Your task to perform on an android device: What is the news today? Image 0: 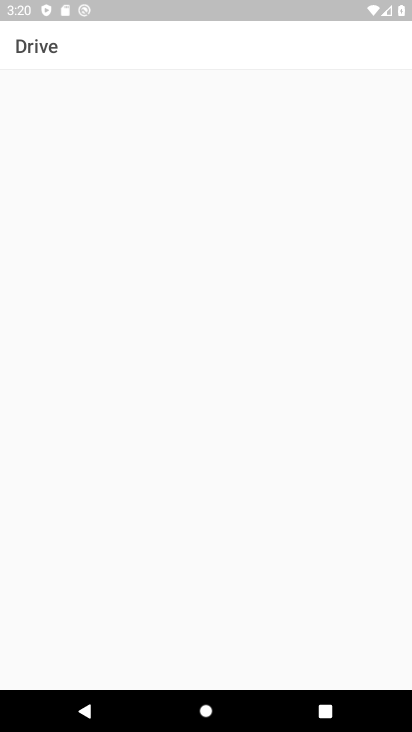
Step 0: press home button
Your task to perform on an android device: What is the news today? Image 1: 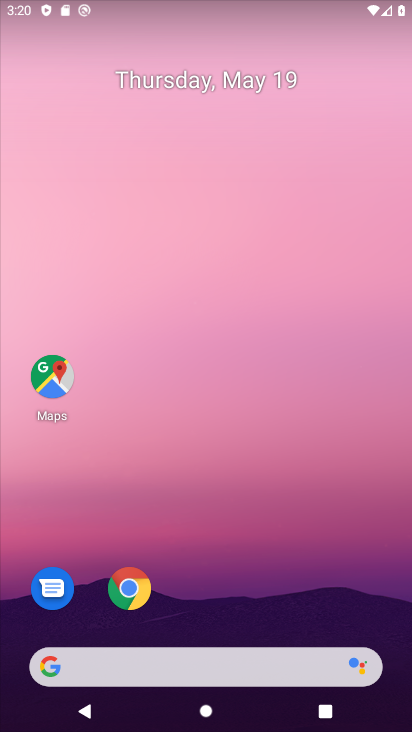
Step 1: drag from (259, 619) to (352, 27)
Your task to perform on an android device: What is the news today? Image 2: 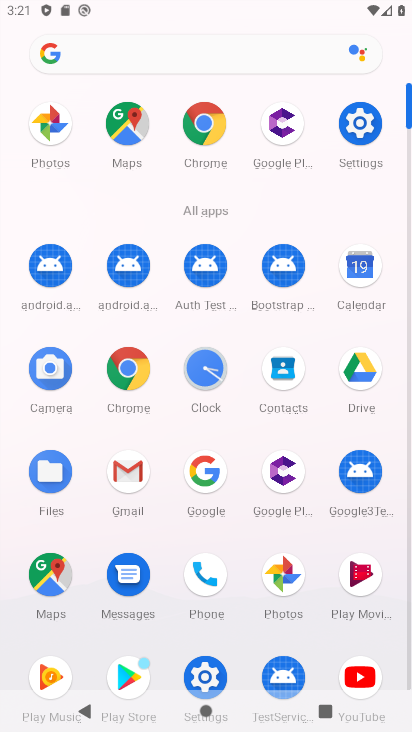
Step 2: click (184, 52)
Your task to perform on an android device: What is the news today? Image 3: 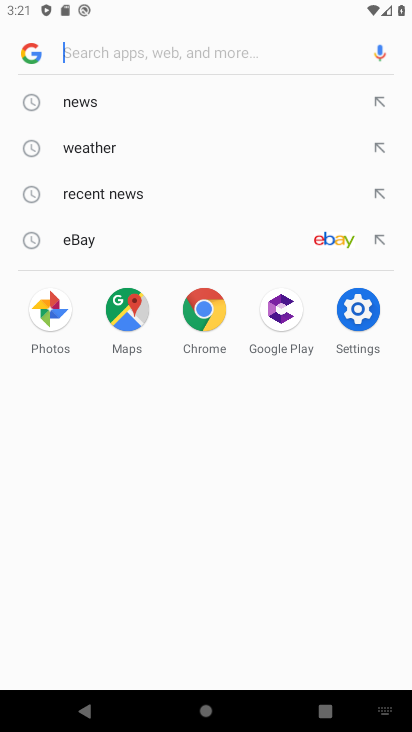
Step 3: type "news today?"
Your task to perform on an android device: What is the news today? Image 4: 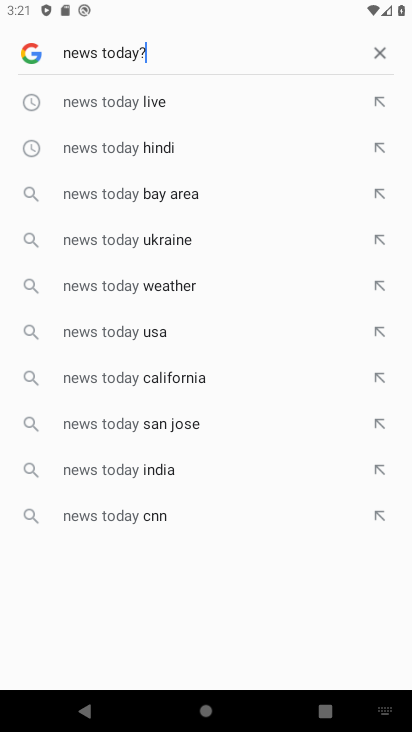
Step 4: click (166, 106)
Your task to perform on an android device: What is the news today? Image 5: 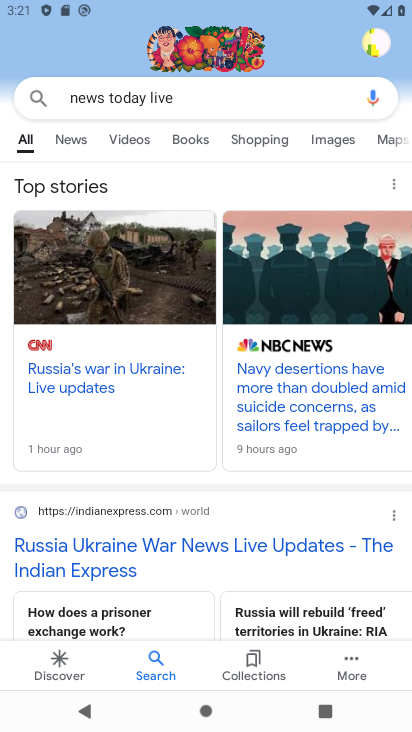
Step 5: task complete